Your task to perform on an android device: Open ESPN.com Image 0: 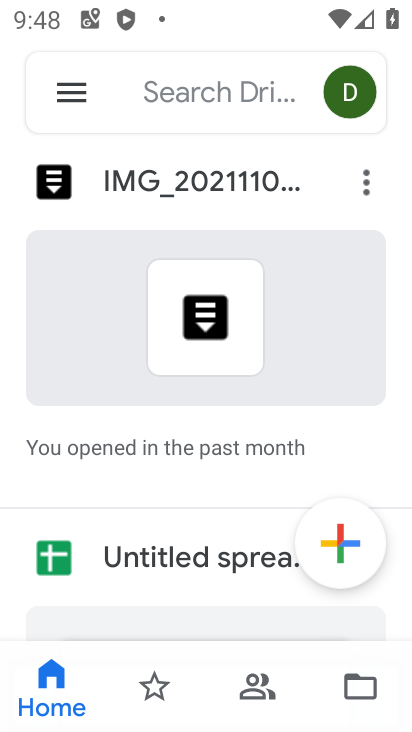
Step 0: press home button
Your task to perform on an android device: Open ESPN.com Image 1: 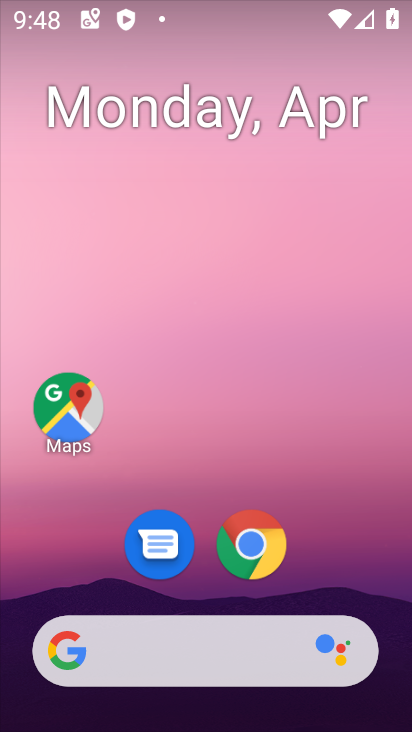
Step 1: click (273, 206)
Your task to perform on an android device: Open ESPN.com Image 2: 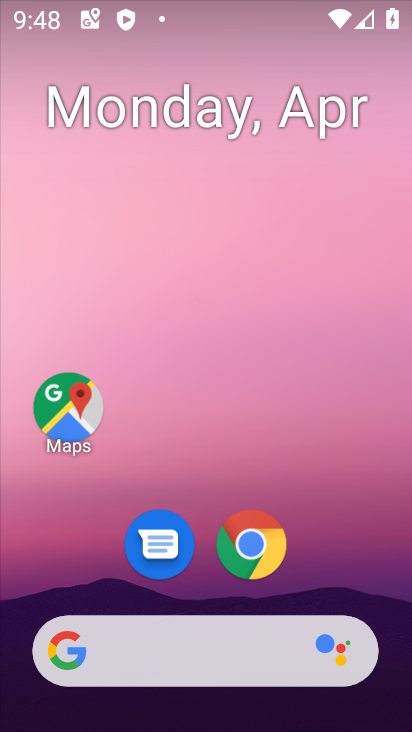
Step 2: drag from (243, 573) to (265, 180)
Your task to perform on an android device: Open ESPN.com Image 3: 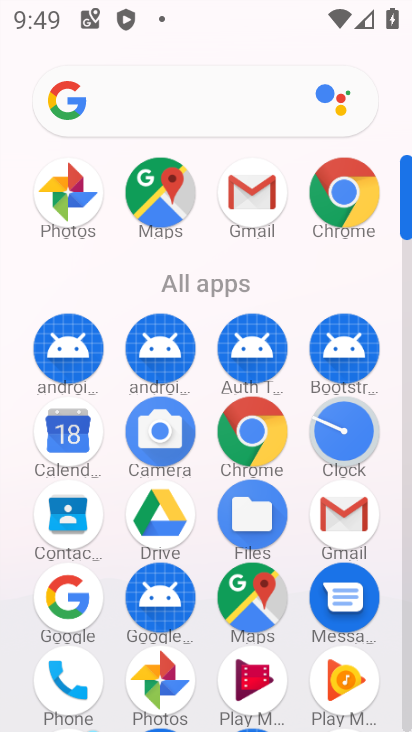
Step 3: click (352, 195)
Your task to perform on an android device: Open ESPN.com Image 4: 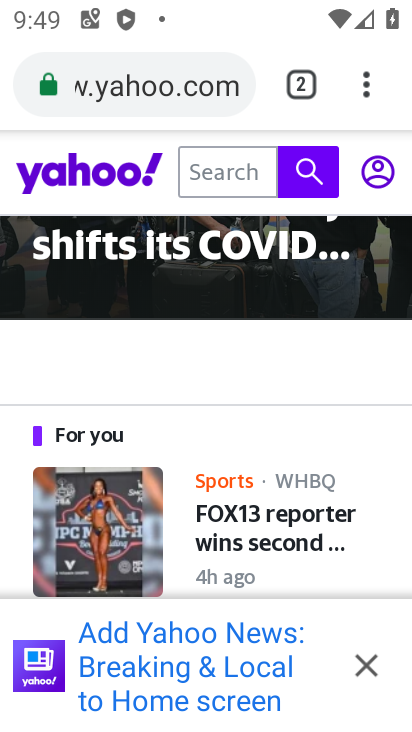
Step 4: click (356, 79)
Your task to perform on an android device: Open ESPN.com Image 5: 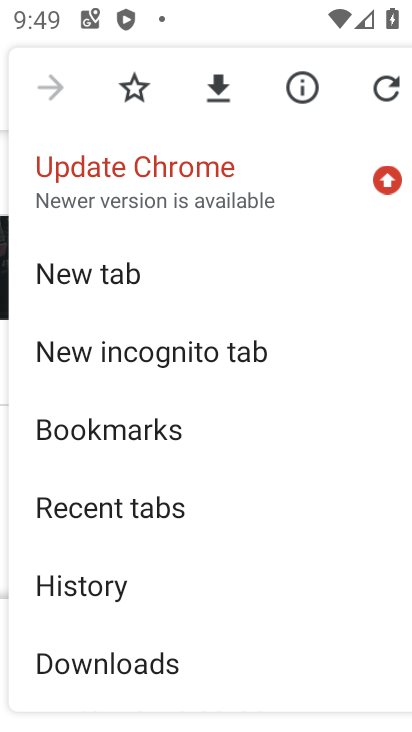
Step 5: click (145, 274)
Your task to perform on an android device: Open ESPN.com Image 6: 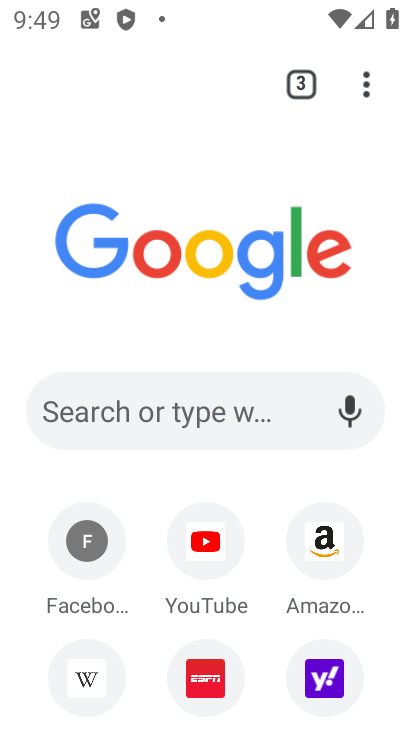
Step 6: drag from (358, 604) to (378, 226)
Your task to perform on an android device: Open ESPN.com Image 7: 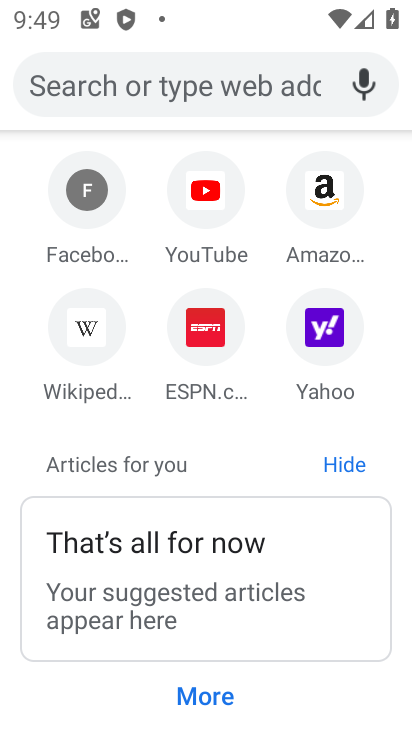
Step 7: click (202, 305)
Your task to perform on an android device: Open ESPN.com Image 8: 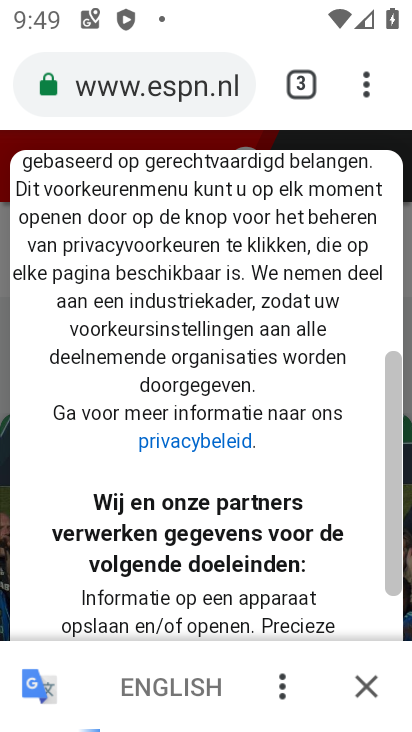
Step 8: click (354, 690)
Your task to perform on an android device: Open ESPN.com Image 9: 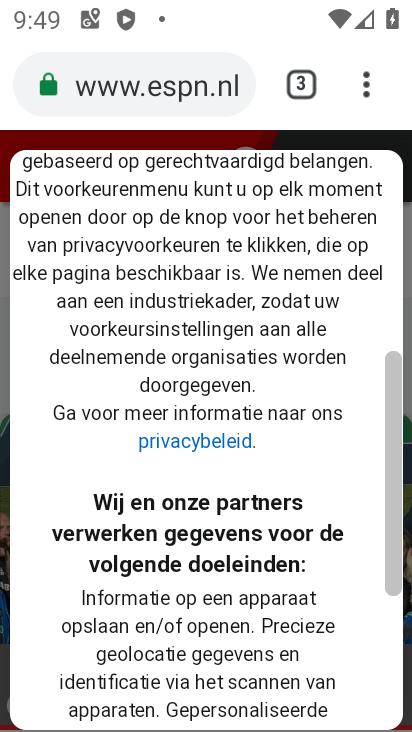
Step 9: task complete